Your task to perform on an android device: turn on showing notifications on the lock screen Image 0: 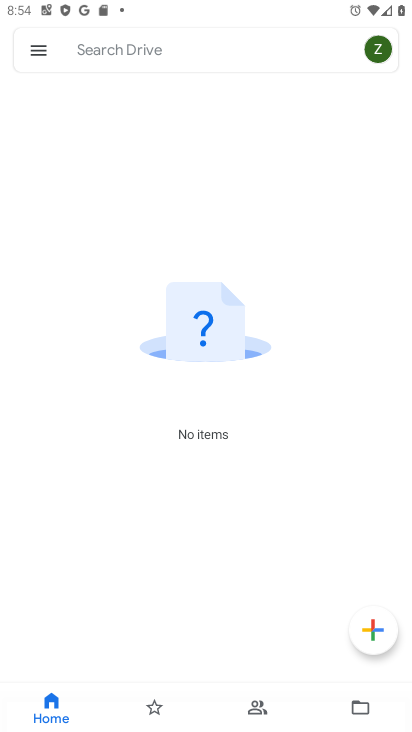
Step 0: press home button
Your task to perform on an android device: turn on showing notifications on the lock screen Image 1: 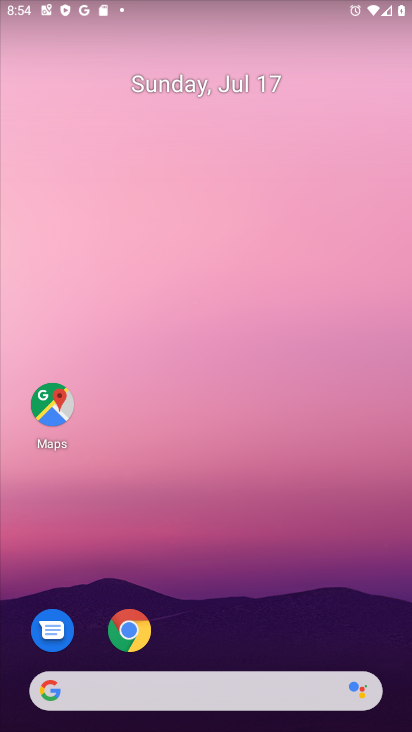
Step 1: drag from (191, 537) to (191, 266)
Your task to perform on an android device: turn on showing notifications on the lock screen Image 2: 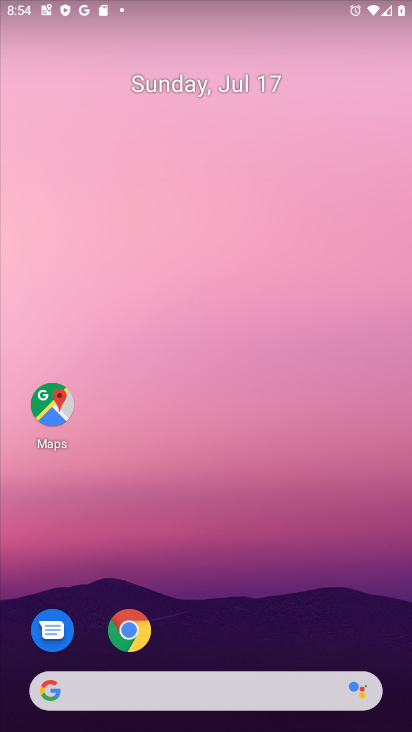
Step 2: drag from (178, 582) to (237, 58)
Your task to perform on an android device: turn on showing notifications on the lock screen Image 3: 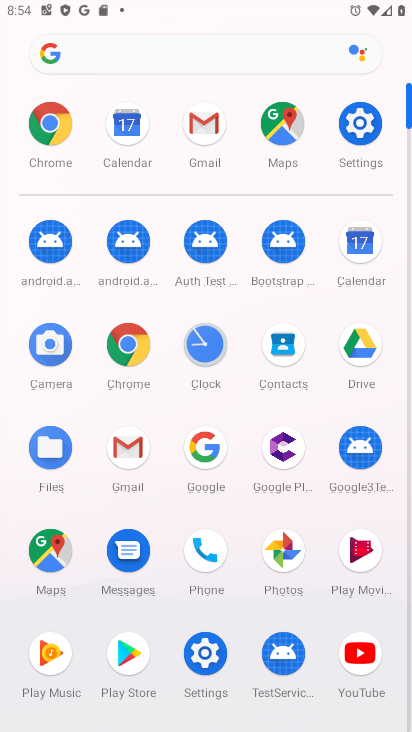
Step 3: click (349, 129)
Your task to perform on an android device: turn on showing notifications on the lock screen Image 4: 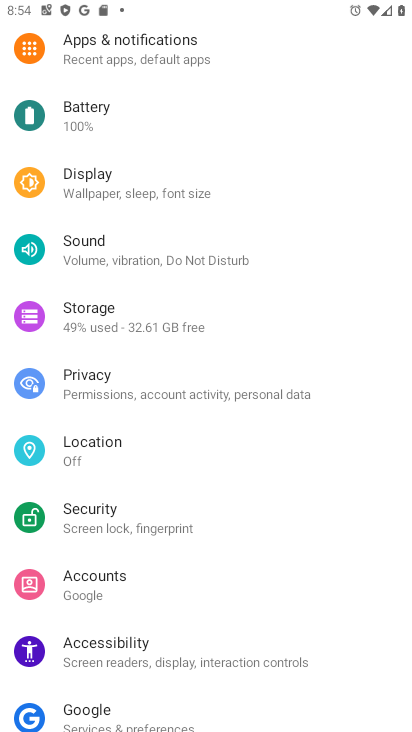
Step 4: click (172, 50)
Your task to perform on an android device: turn on showing notifications on the lock screen Image 5: 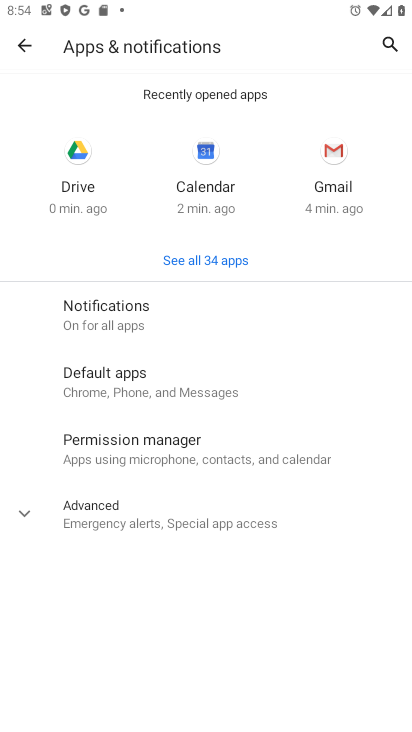
Step 5: click (115, 315)
Your task to perform on an android device: turn on showing notifications on the lock screen Image 6: 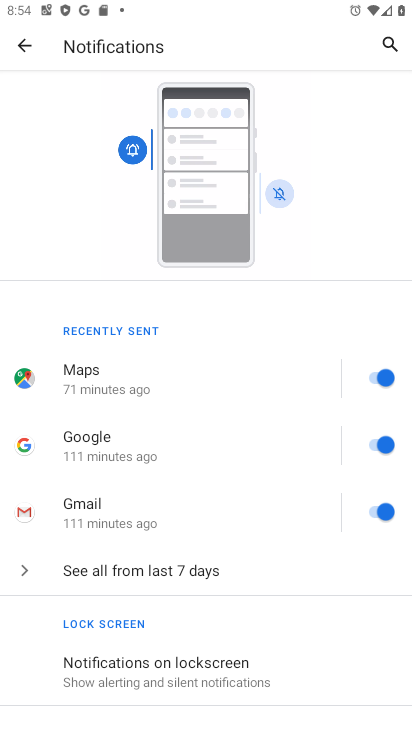
Step 6: click (166, 657)
Your task to perform on an android device: turn on showing notifications on the lock screen Image 7: 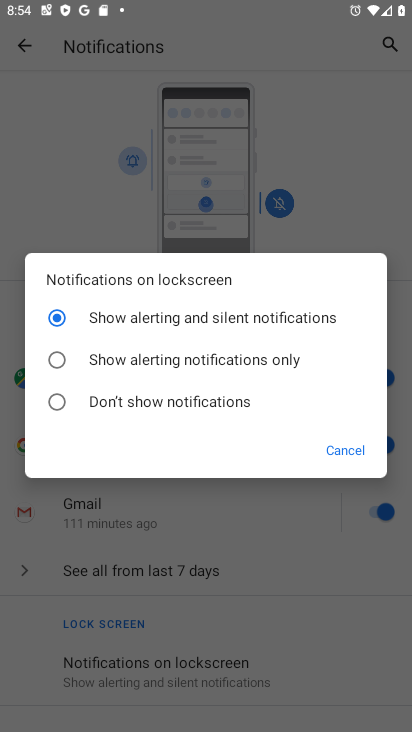
Step 7: task complete